Your task to perform on an android device: turn on airplane mode Image 0: 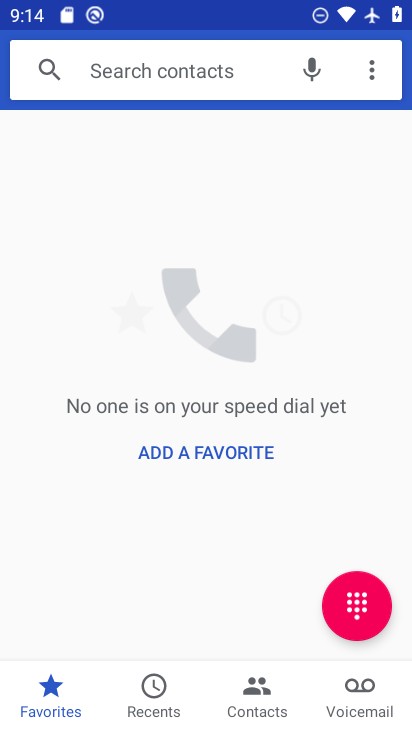
Step 0: press home button
Your task to perform on an android device: turn on airplane mode Image 1: 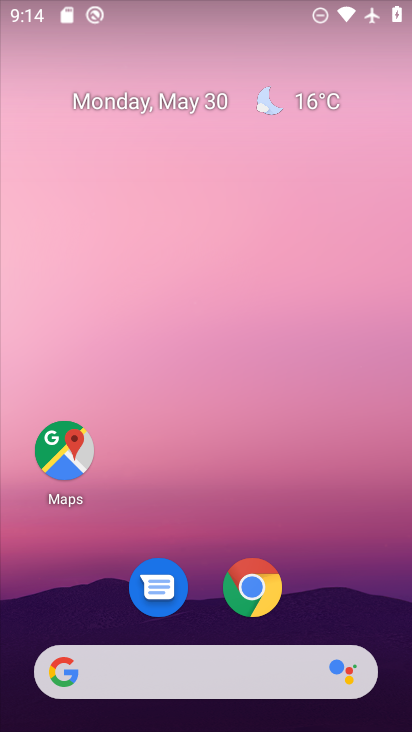
Step 1: drag from (189, 689) to (328, 48)
Your task to perform on an android device: turn on airplane mode Image 2: 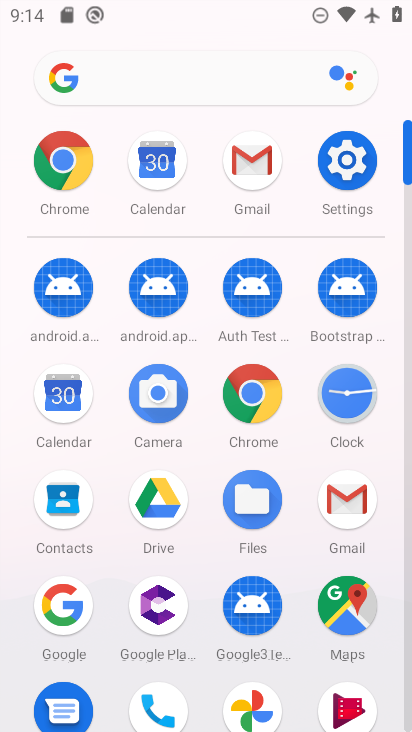
Step 2: click (347, 159)
Your task to perform on an android device: turn on airplane mode Image 3: 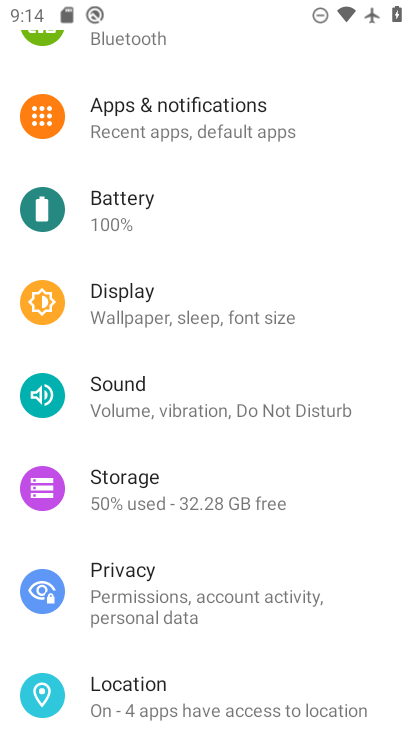
Step 3: drag from (342, 94) to (254, 572)
Your task to perform on an android device: turn on airplane mode Image 4: 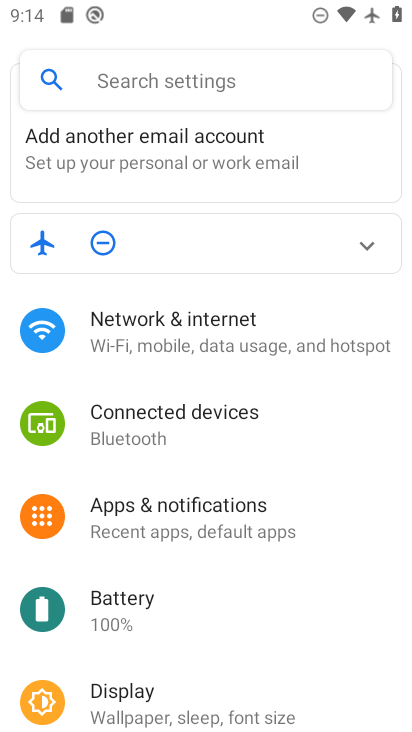
Step 4: click (202, 327)
Your task to perform on an android device: turn on airplane mode Image 5: 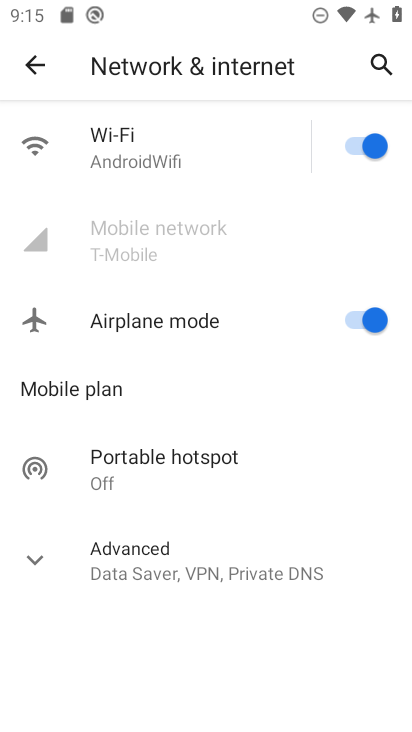
Step 5: task complete